Your task to perform on an android device: Do I have any events today? Image 0: 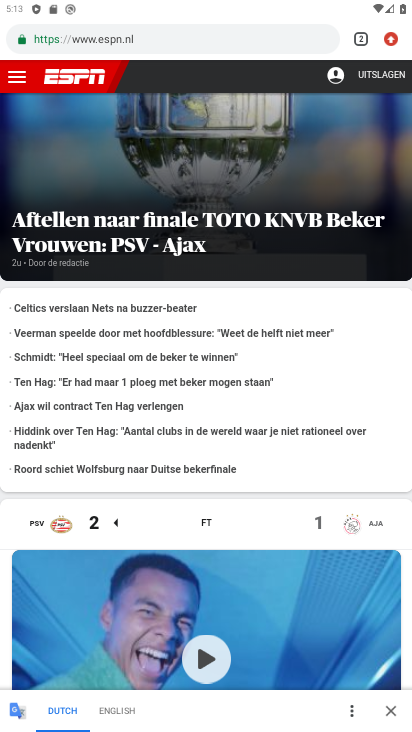
Step 0: press home button
Your task to perform on an android device: Do I have any events today? Image 1: 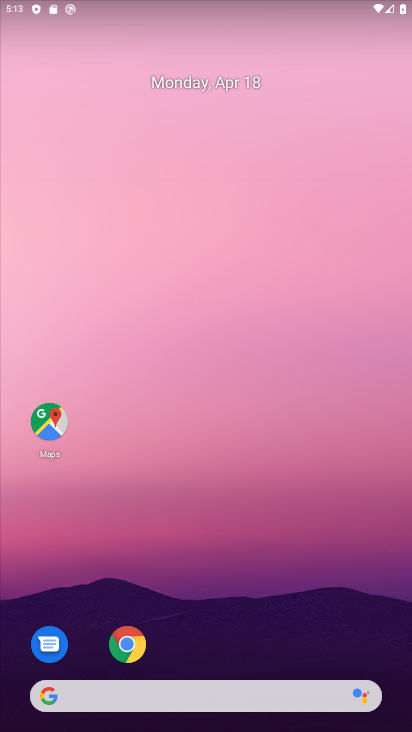
Step 1: drag from (191, 620) to (231, 66)
Your task to perform on an android device: Do I have any events today? Image 2: 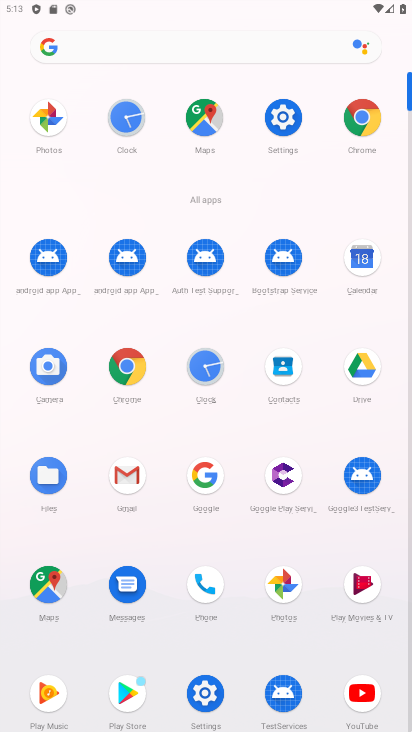
Step 2: click (363, 261)
Your task to perform on an android device: Do I have any events today? Image 3: 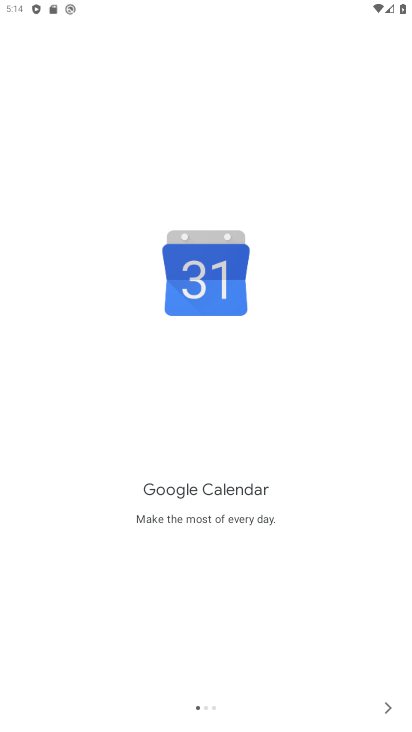
Step 3: click (385, 707)
Your task to perform on an android device: Do I have any events today? Image 4: 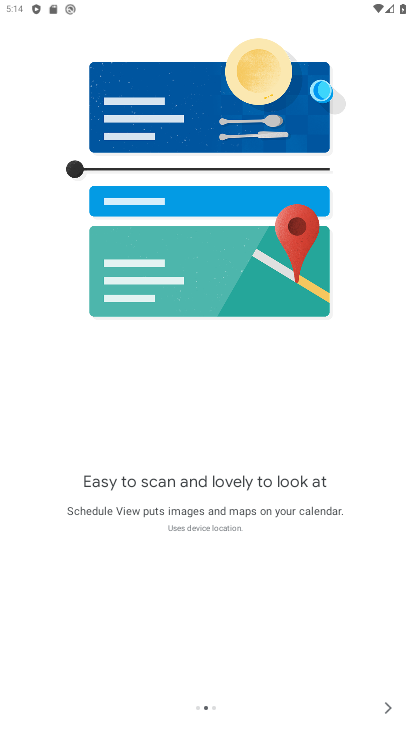
Step 4: click (385, 707)
Your task to perform on an android device: Do I have any events today? Image 5: 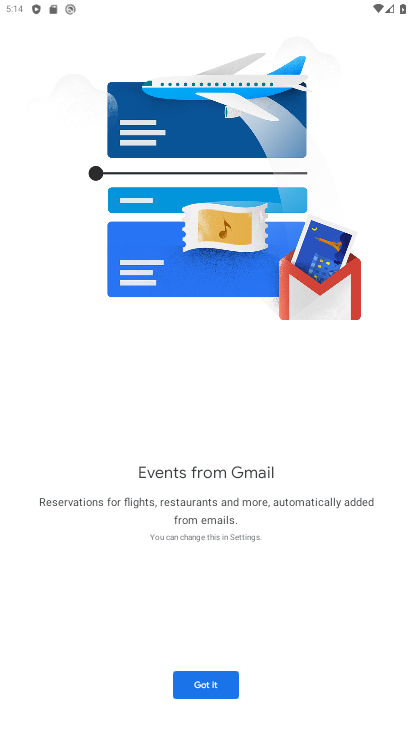
Step 5: click (210, 681)
Your task to perform on an android device: Do I have any events today? Image 6: 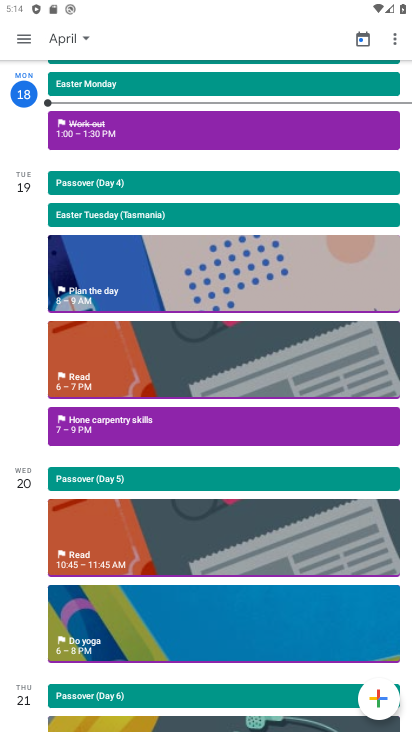
Step 6: click (31, 123)
Your task to perform on an android device: Do I have any events today? Image 7: 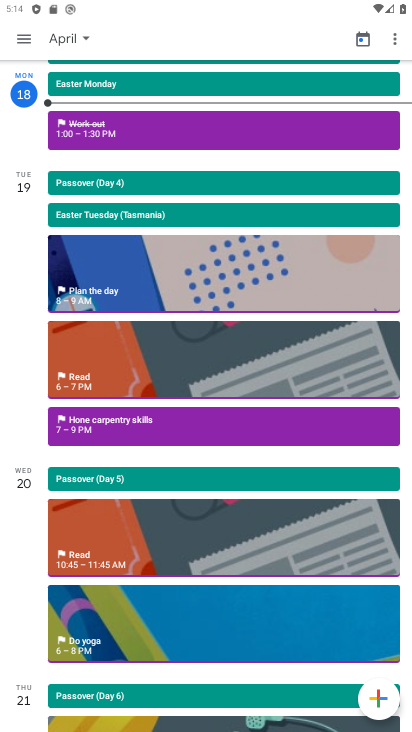
Step 7: task complete